Your task to perform on an android device: allow cookies in the chrome app Image 0: 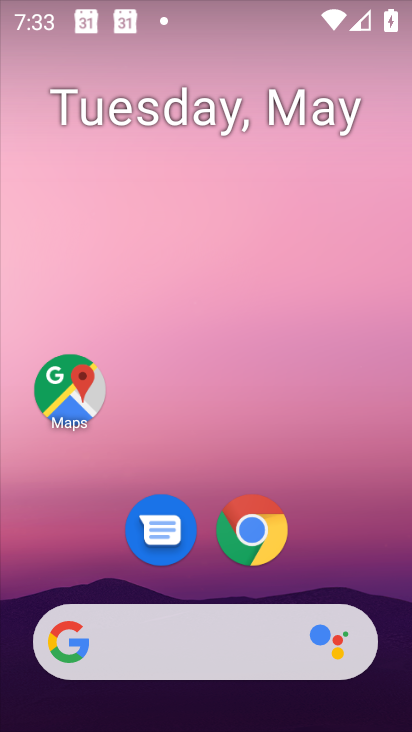
Step 0: click (247, 528)
Your task to perform on an android device: allow cookies in the chrome app Image 1: 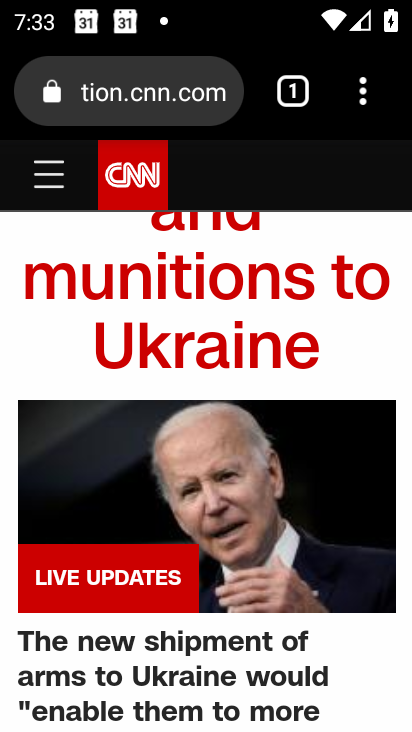
Step 1: click (367, 92)
Your task to perform on an android device: allow cookies in the chrome app Image 2: 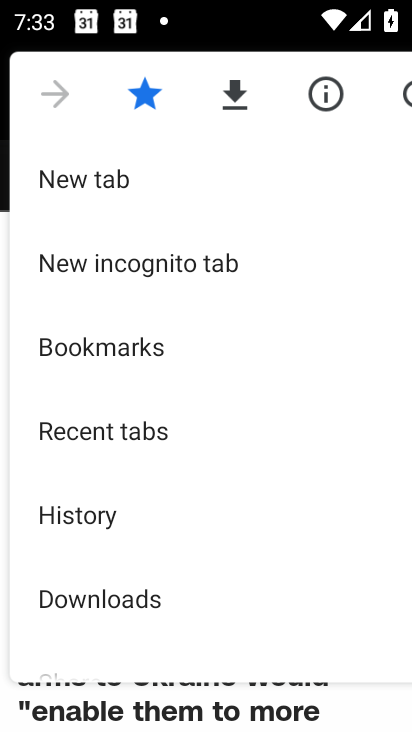
Step 2: drag from (119, 633) to (140, 247)
Your task to perform on an android device: allow cookies in the chrome app Image 3: 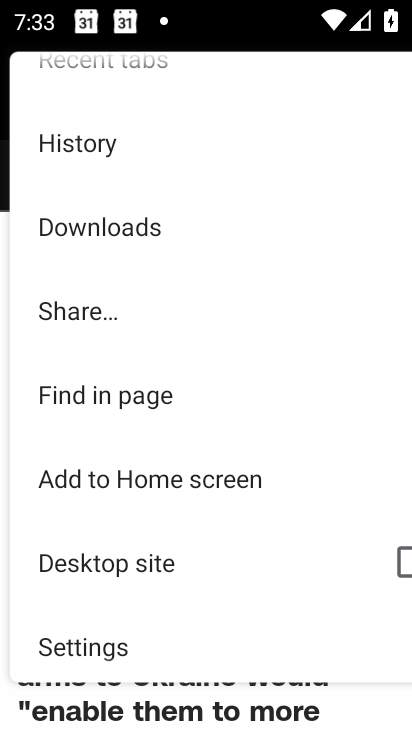
Step 3: click (82, 650)
Your task to perform on an android device: allow cookies in the chrome app Image 4: 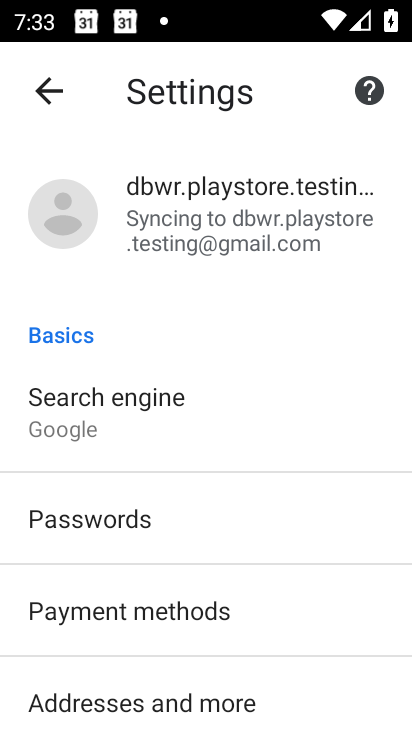
Step 4: drag from (213, 653) to (265, 211)
Your task to perform on an android device: allow cookies in the chrome app Image 5: 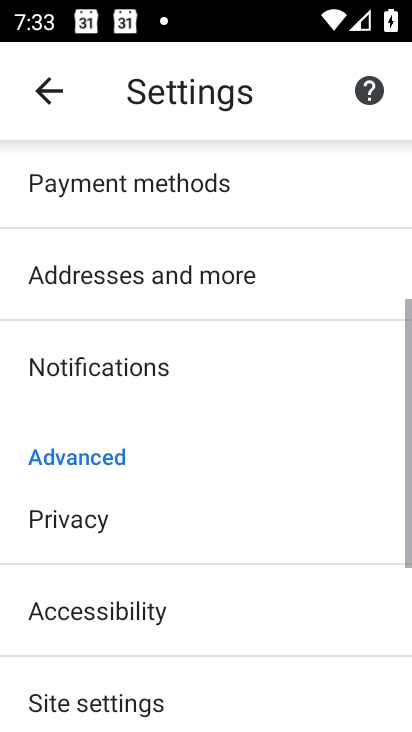
Step 5: click (135, 710)
Your task to perform on an android device: allow cookies in the chrome app Image 6: 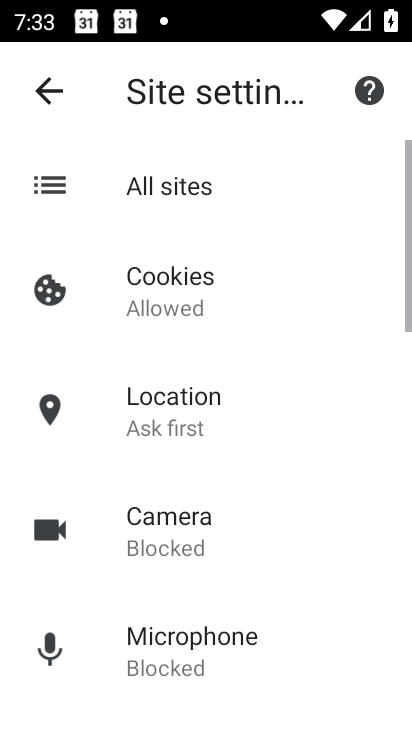
Step 6: drag from (255, 651) to (209, 280)
Your task to perform on an android device: allow cookies in the chrome app Image 7: 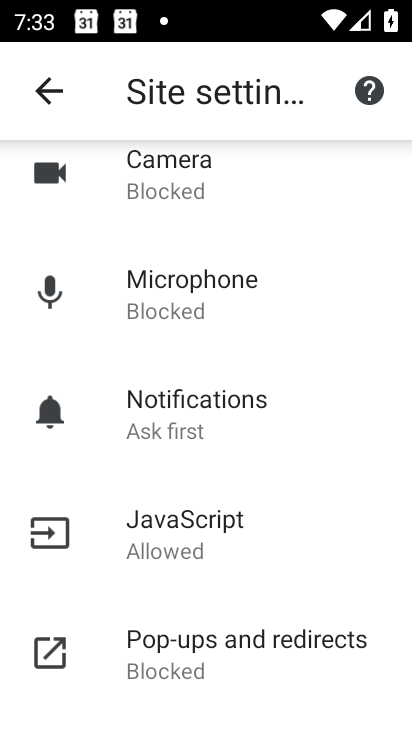
Step 7: drag from (339, 195) to (278, 630)
Your task to perform on an android device: allow cookies in the chrome app Image 8: 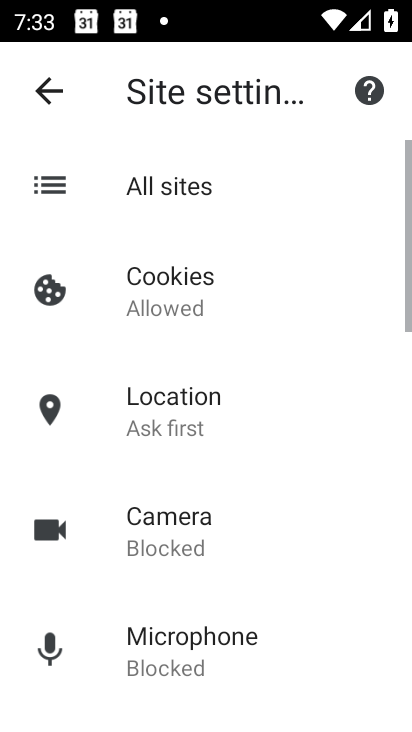
Step 8: click (204, 296)
Your task to perform on an android device: allow cookies in the chrome app Image 9: 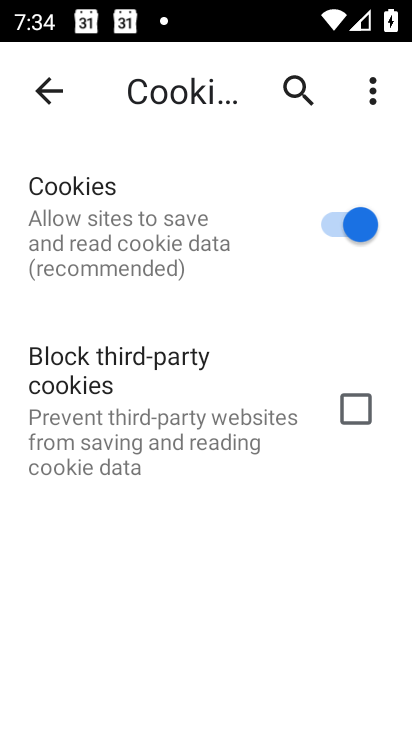
Step 9: task complete